Your task to perform on an android device: Do I have any events this weekend? Image 0: 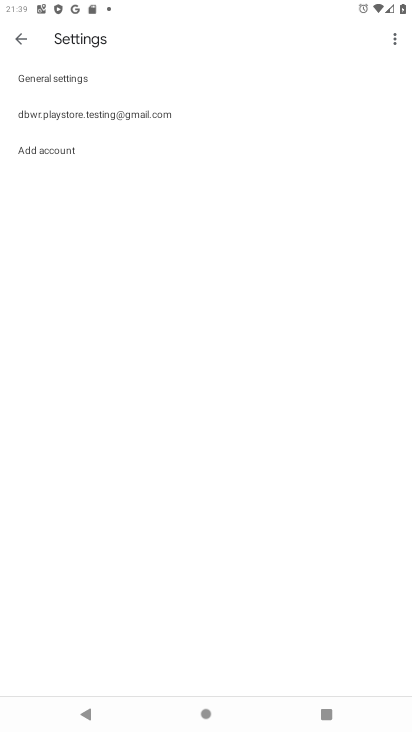
Step 0: press home button
Your task to perform on an android device: Do I have any events this weekend? Image 1: 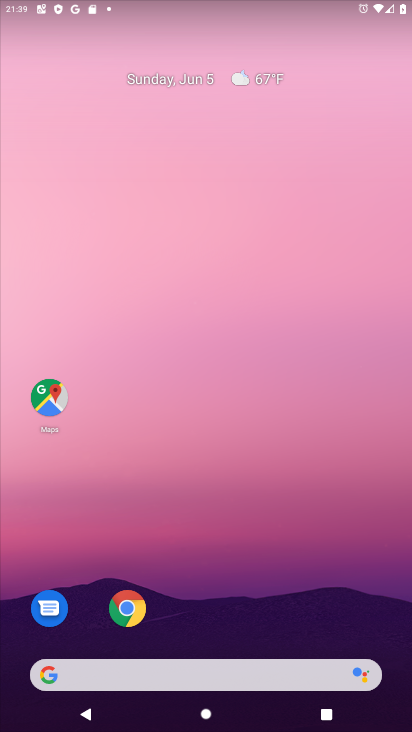
Step 1: drag from (80, 490) to (279, 111)
Your task to perform on an android device: Do I have any events this weekend? Image 2: 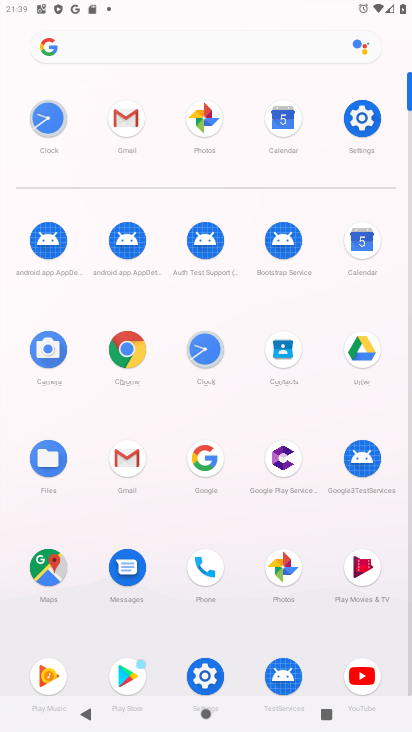
Step 2: click (351, 241)
Your task to perform on an android device: Do I have any events this weekend? Image 3: 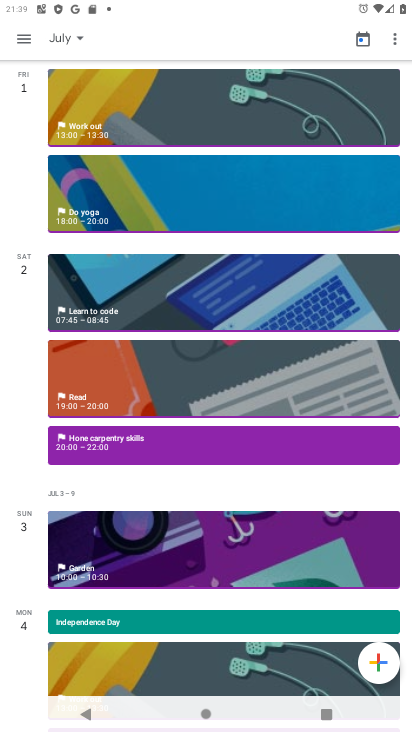
Step 3: click (63, 41)
Your task to perform on an android device: Do I have any events this weekend? Image 4: 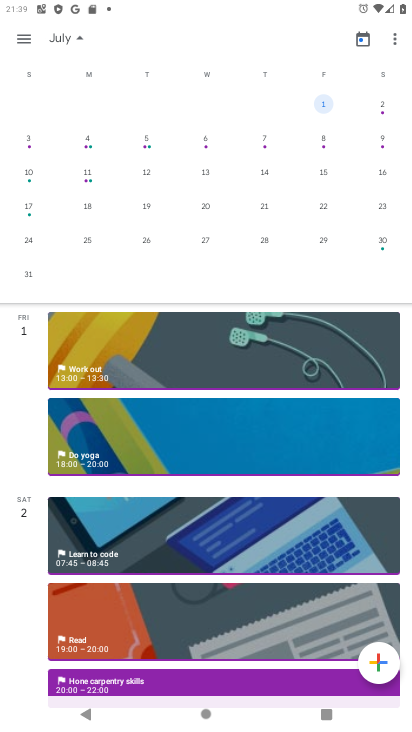
Step 4: drag from (6, 207) to (410, 170)
Your task to perform on an android device: Do I have any events this weekend? Image 5: 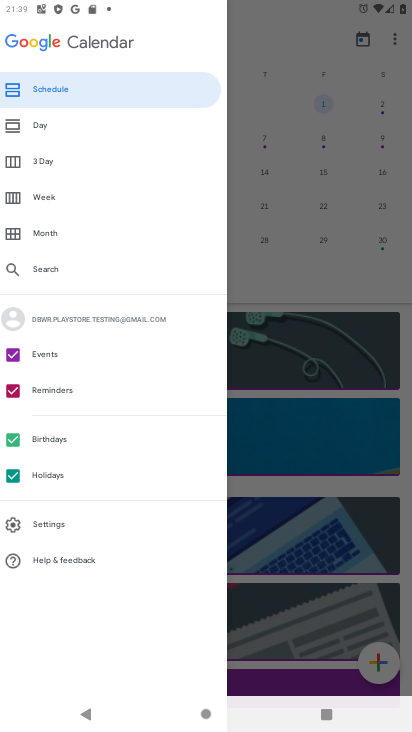
Step 5: press back button
Your task to perform on an android device: Do I have any events this weekend? Image 6: 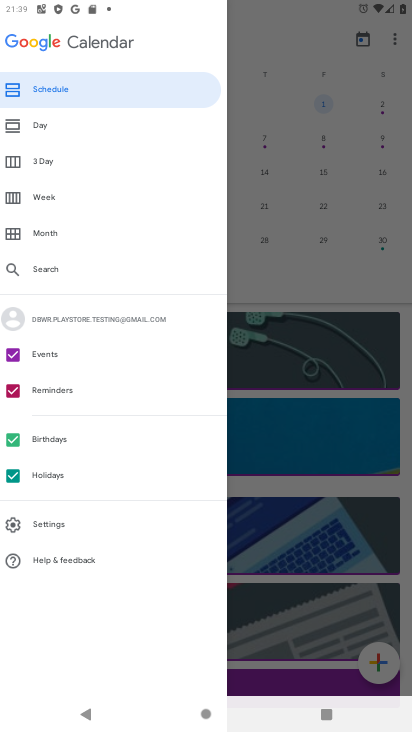
Step 6: click (395, 246)
Your task to perform on an android device: Do I have any events this weekend? Image 7: 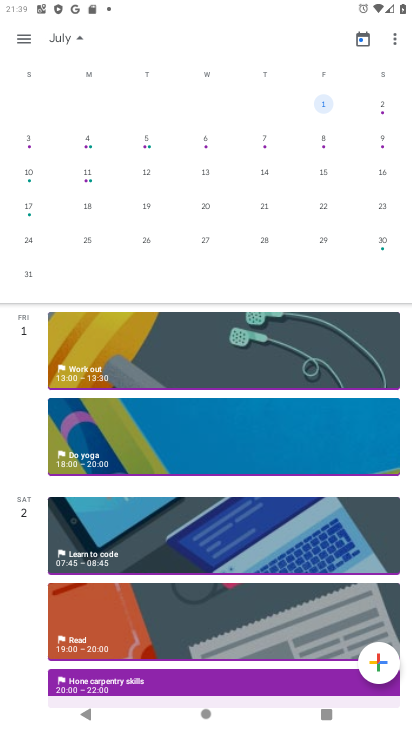
Step 7: drag from (145, 210) to (352, 228)
Your task to perform on an android device: Do I have any events this weekend? Image 8: 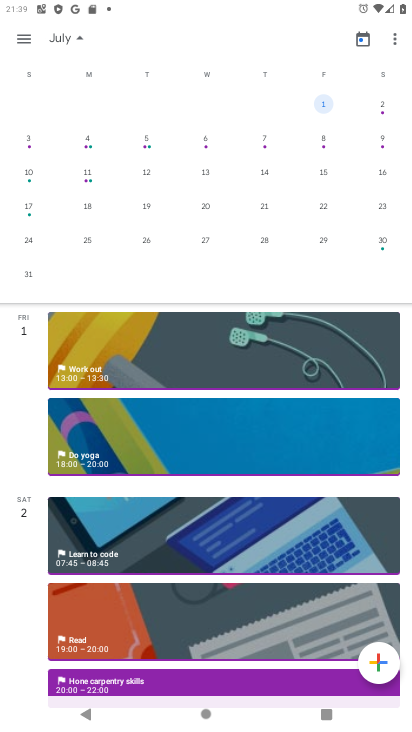
Step 8: drag from (47, 191) to (341, 202)
Your task to perform on an android device: Do I have any events this weekend? Image 9: 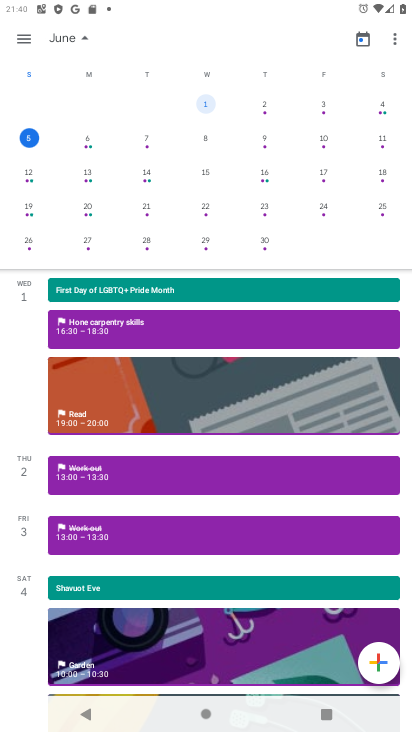
Step 9: click (390, 113)
Your task to perform on an android device: Do I have any events this weekend? Image 10: 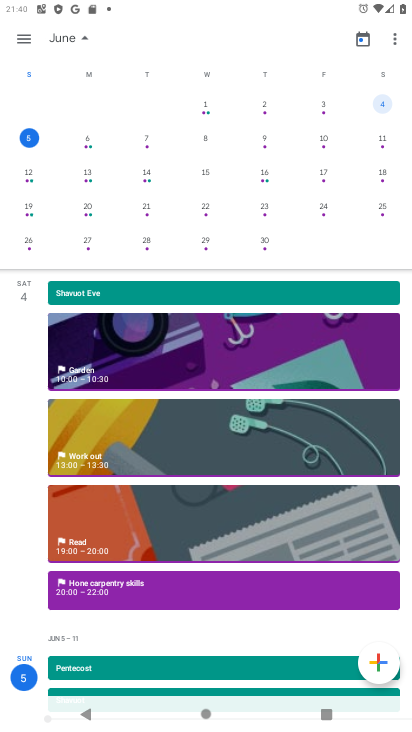
Step 10: click (40, 136)
Your task to perform on an android device: Do I have any events this weekend? Image 11: 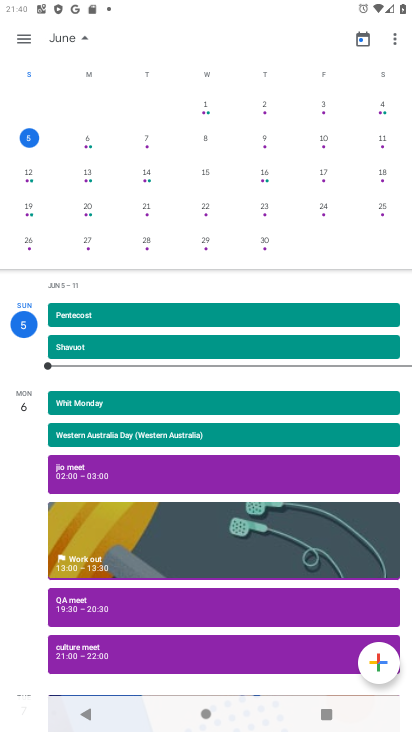
Step 11: task complete